Your task to perform on an android device: Show the shopping cart on ebay. Search for logitech g pro on ebay, select the first entry, and add it to the cart. Image 0: 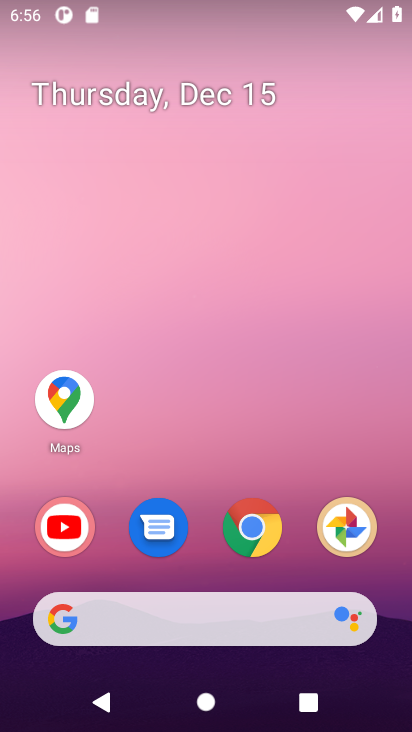
Step 0: click (264, 554)
Your task to perform on an android device: Show the shopping cart on ebay. Search for logitech g pro on ebay, select the first entry, and add it to the cart. Image 1: 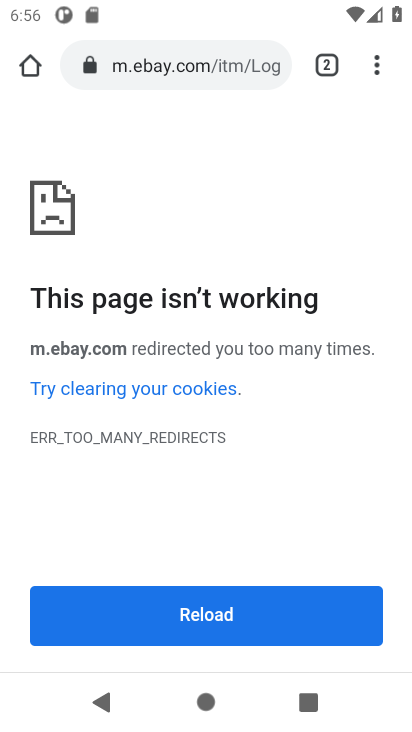
Step 1: click (232, 61)
Your task to perform on an android device: Show the shopping cart on ebay. Search for logitech g pro on ebay, select the first entry, and add it to the cart. Image 2: 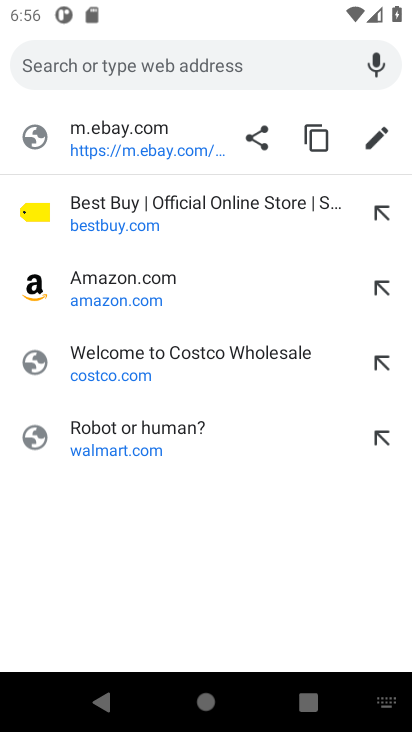
Step 2: click (171, 140)
Your task to perform on an android device: Show the shopping cart on ebay. Search for logitech g pro on ebay, select the first entry, and add it to the cart. Image 3: 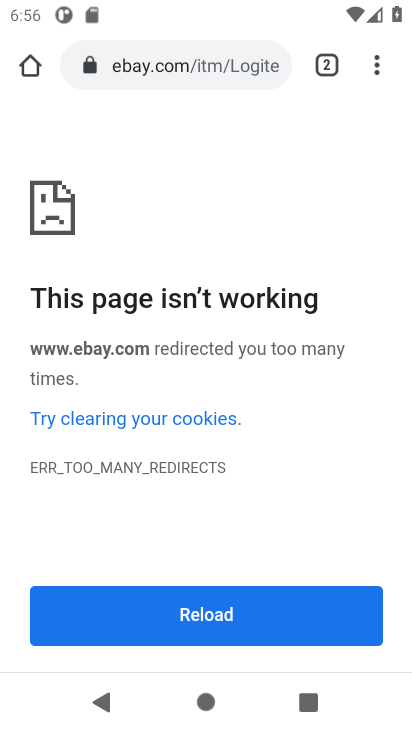
Step 3: click (184, 57)
Your task to perform on an android device: Show the shopping cart on ebay. Search for logitech g pro on ebay, select the first entry, and add it to the cart. Image 4: 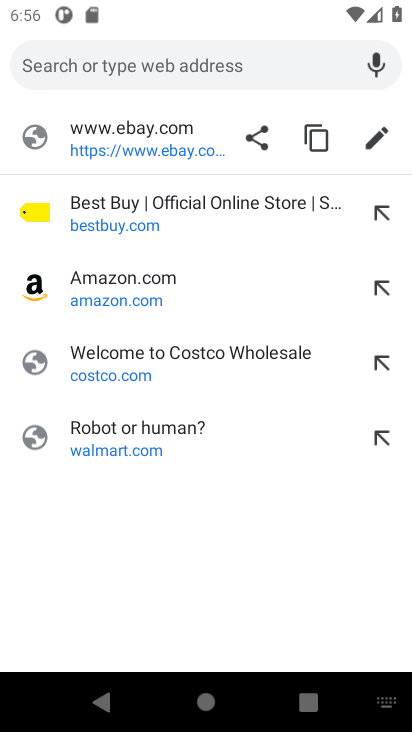
Step 4: type "ebay.com"
Your task to perform on an android device: Show the shopping cart on ebay. Search for logitech g pro on ebay, select the first entry, and add it to the cart. Image 5: 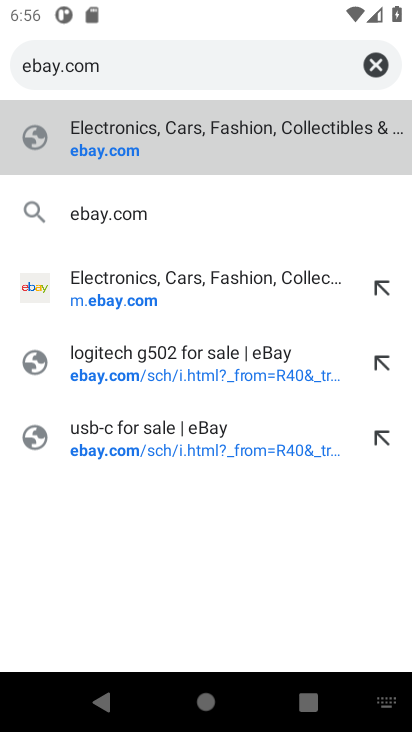
Step 5: click (107, 126)
Your task to perform on an android device: Show the shopping cart on ebay. Search for logitech g pro on ebay, select the first entry, and add it to the cart. Image 6: 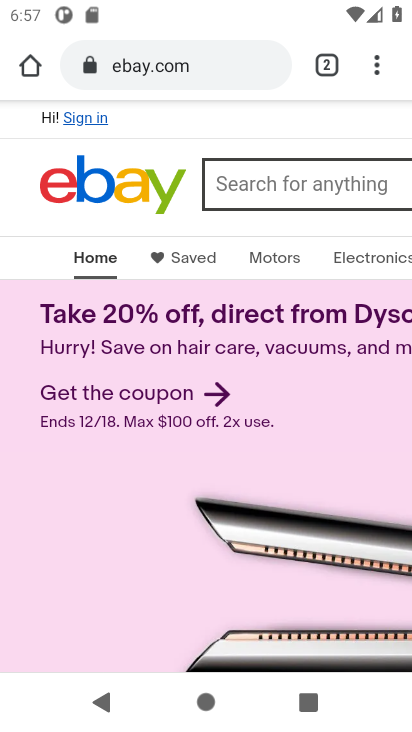
Step 6: click (301, 191)
Your task to perform on an android device: Show the shopping cart on ebay. Search for logitech g pro on ebay, select the first entry, and add it to the cart. Image 7: 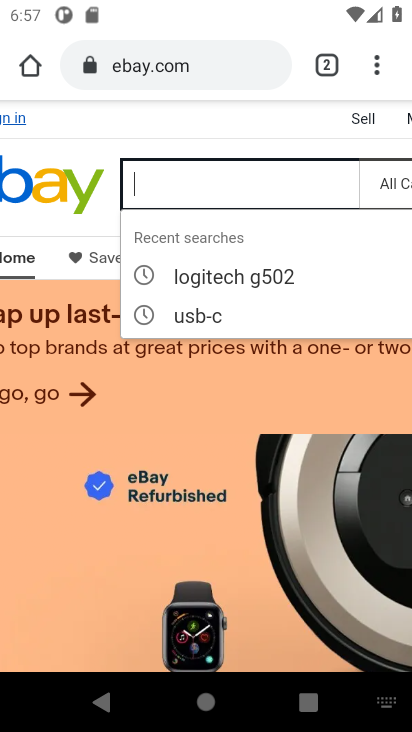
Step 7: drag from (233, 150) to (17, 137)
Your task to perform on an android device: Show the shopping cart on ebay. Search for logitech g pro on ebay, select the first entry, and add it to the cart. Image 8: 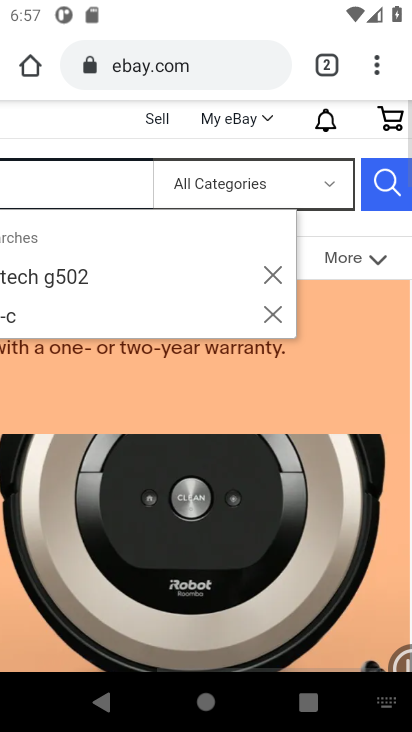
Step 8: click (346, 134)
Your task to perform on an android device: Show the shopping cart on ebay. Search for logitech g pro on ebay, select the first entry, and add it to the cart. Image 9: 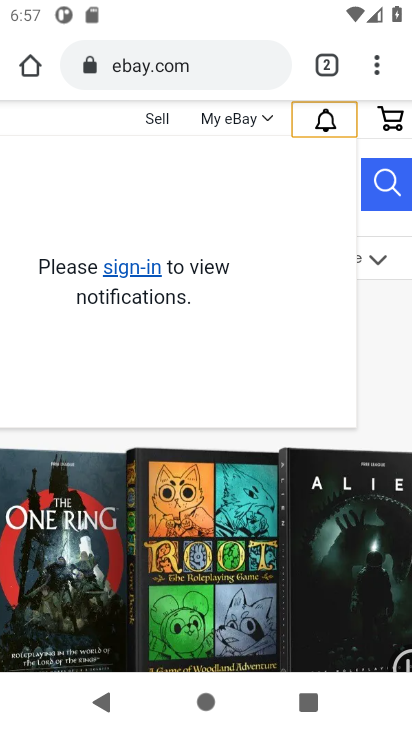
Step 9: click (400, 124)
Your task to perform on an android device: Show the shopping cart on ebay. Search for logitech g pro on ebay, select the first entry, and add it to the cart. Image 10: 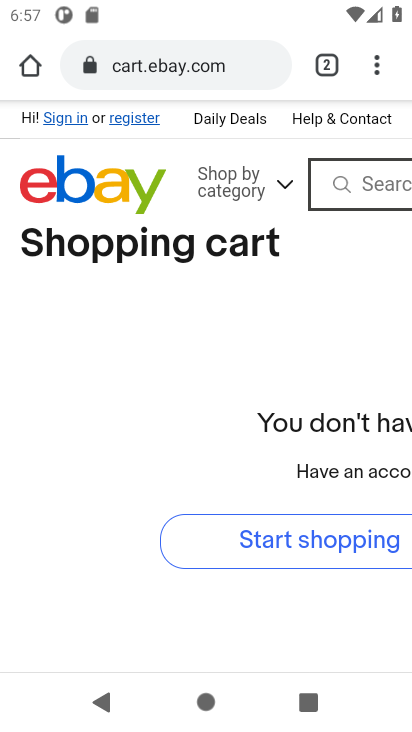
Step 10: task complete